Your task to perform on an android device: add a contact in the contacts app Image 0: 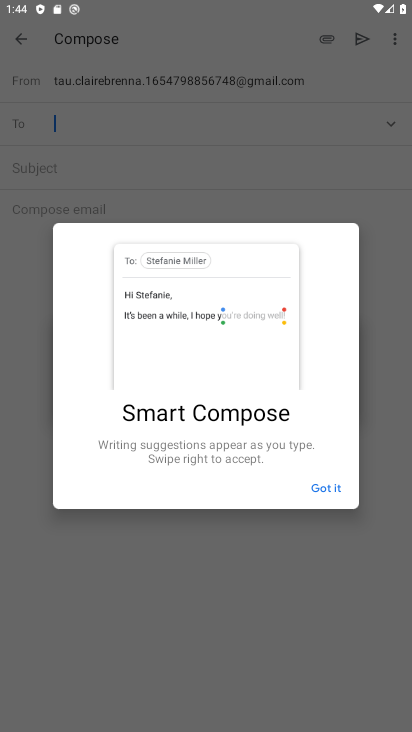
Step 0: press home button
Your task to perform on an android device: add a contact in the contacts app Image 1: 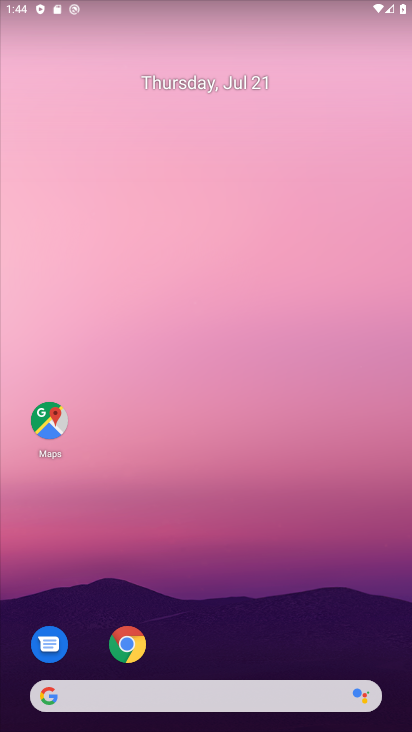
Step 1: drag from (233, 600) to (200, 21)
Your task to perform on an android device: add a contact in the contacts app Image 2: 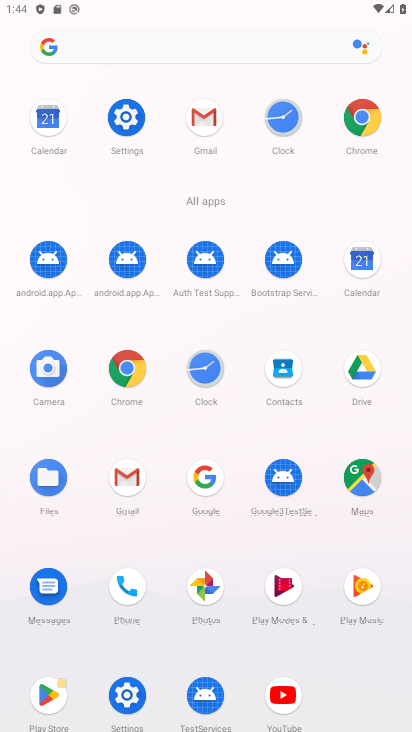
Step 2: click (284, 374)
Your task to perform on an android device: add a contact in the contacts app Image 3: 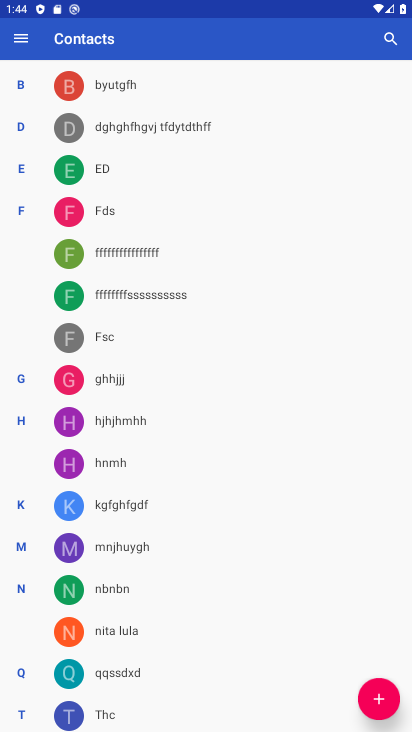
Step 3: click (384, 694)
Your task to perform on an android device: add a contact in the contacts app Image 4: 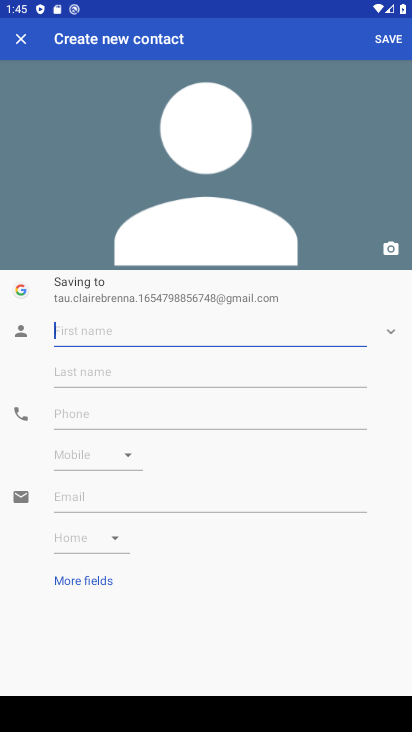
Step 4: type ""
Your task to perform on an android device: add a contact in the contacts app Image 5: 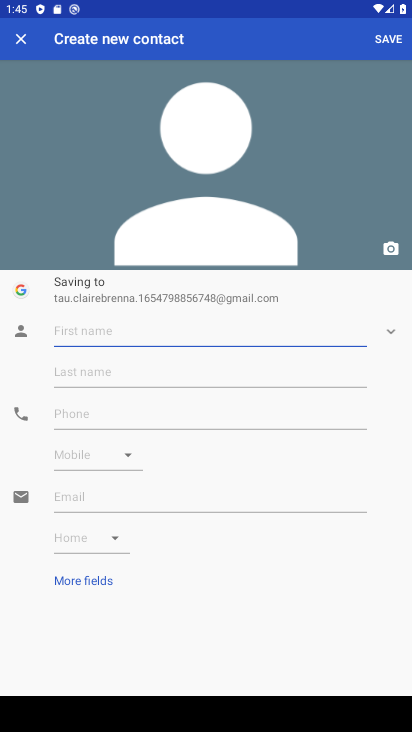
Step 5: type ""
Your task to perform on an android device: add a contact in the contacts app Image 6: 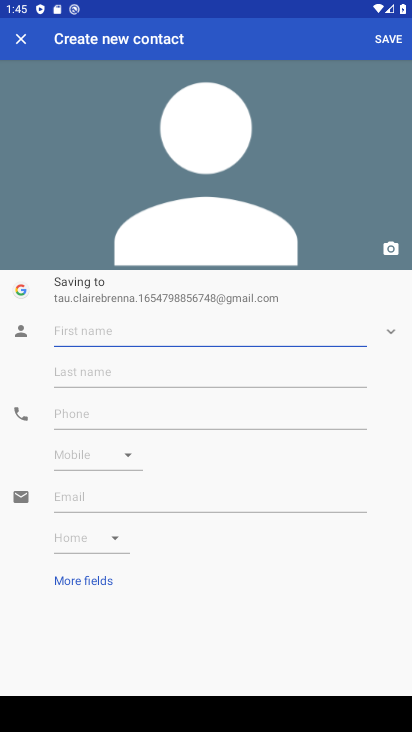
Step 6: type "bhi"
Your task to perform on an android device: add a contact in the contacts app Image 7: 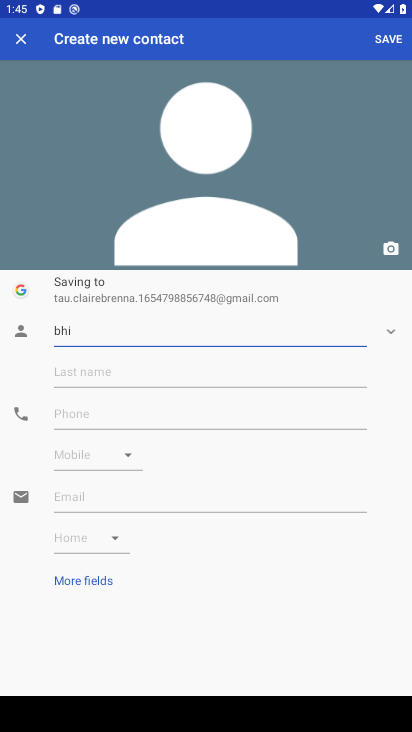
Step 7: click (220, 419)
Your task to perform on an android device: add a contact in the contacts app Image 8: 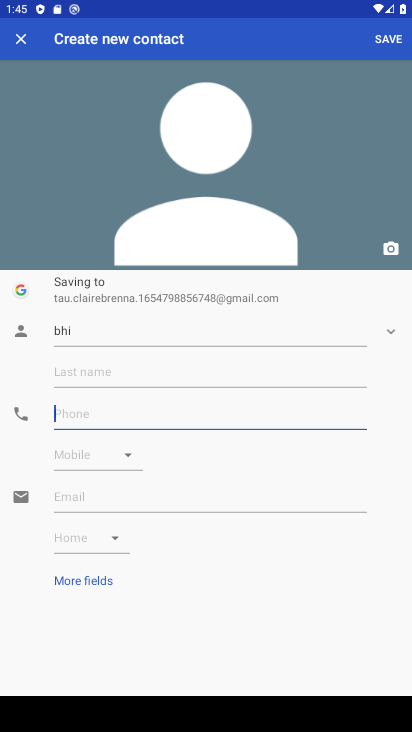
Step 8: type "5678909867"
Your task to perform on an android device: add a contact in the contacts app Image 9: 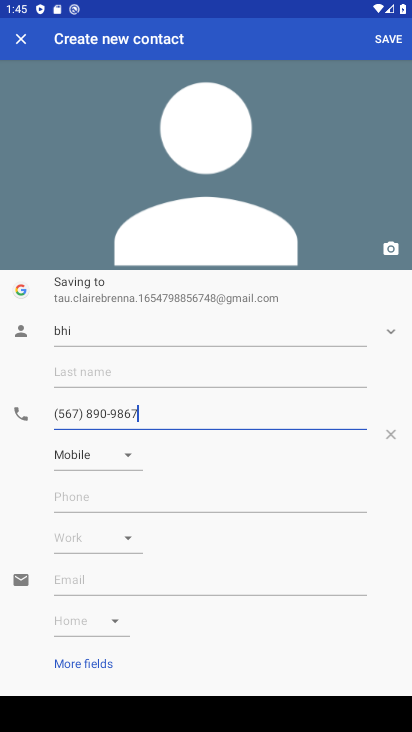
Step 9: click (399, 37)
Your task to perform on an android device: add a contact in the contacts app Image 10: 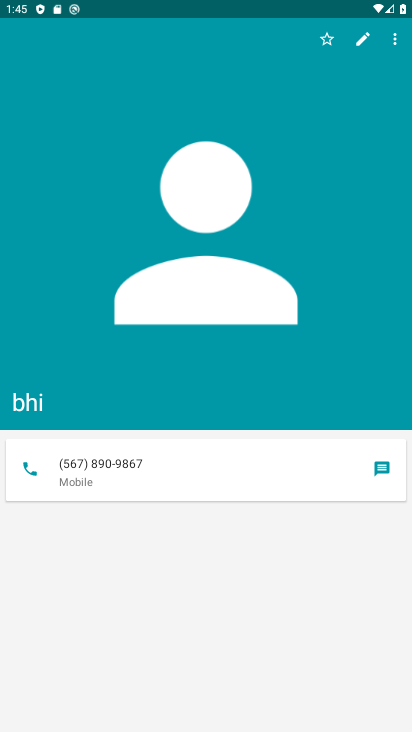
Step 10: task complete